Your task to perform on an android device: What's the weather today? Image 0: 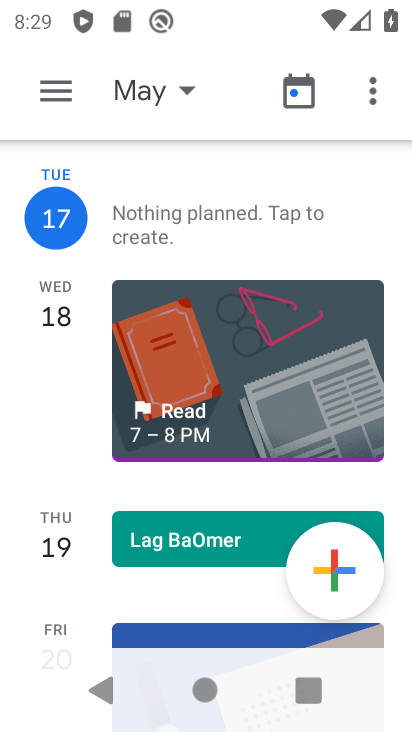
Step 0: press home button
Your task to perform on an android device: What's the weather today? Image 1: 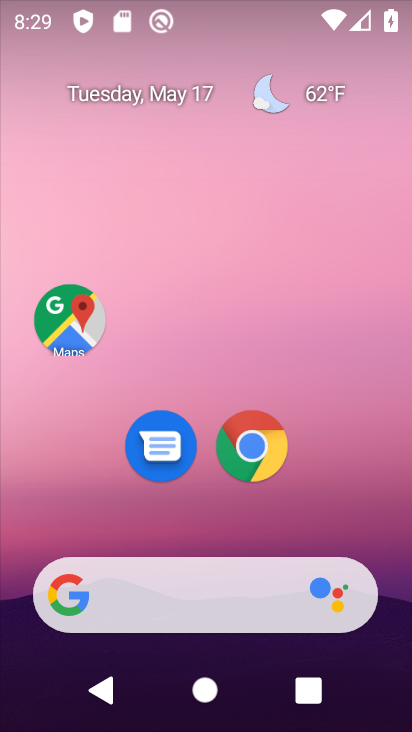
Step 1: drag from (118, 529) to (255, 139)
Your task to perform on an android device: What's the weather today? Image 2: 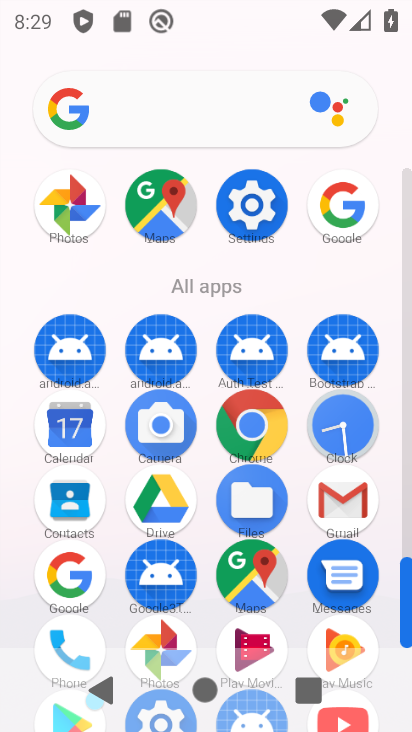
Step 2: click (46, 583)
Your task to perform on an android device: What's the weather today? Image 3: 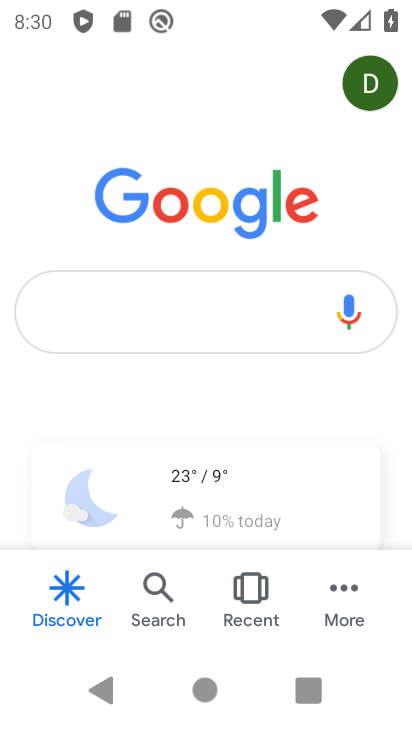
Step 3: click (223, 500)
Your task to perform on an android device: What's the weather today? Image 4: 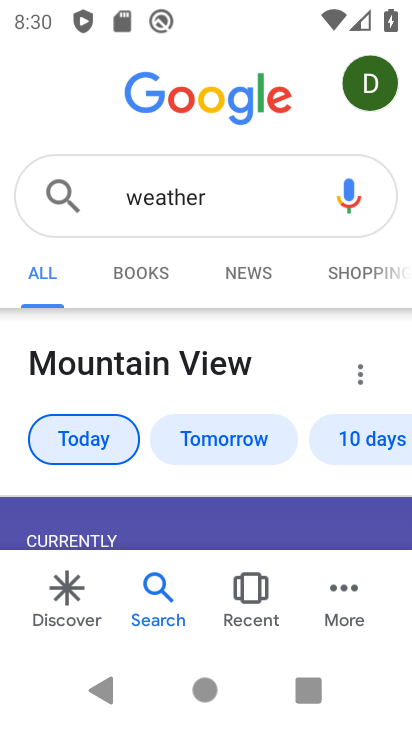
Step 4: task complete